Your task to perform on an android device: Go to ESPN.com Image 0: 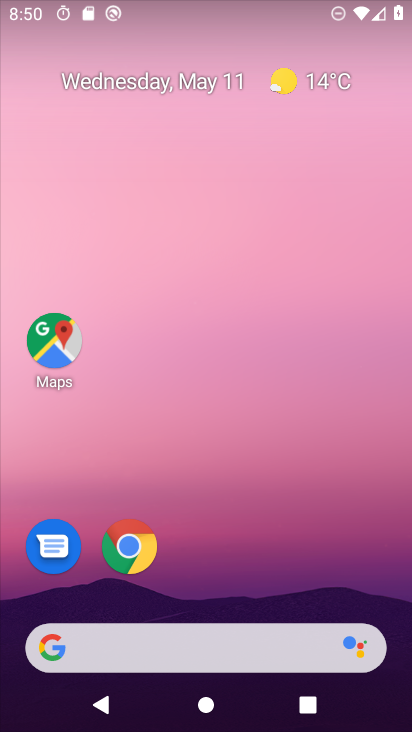
Step 0: click (131, 566)
Your task to perform on an android device: Go to ESPN.com Image 1: 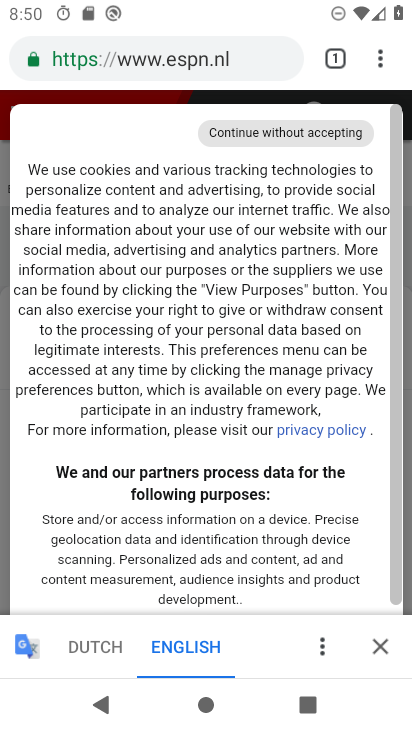
Step 1: task complete